Your task to perform on an android device: What's the news in theFalkland Islands? Image 0: 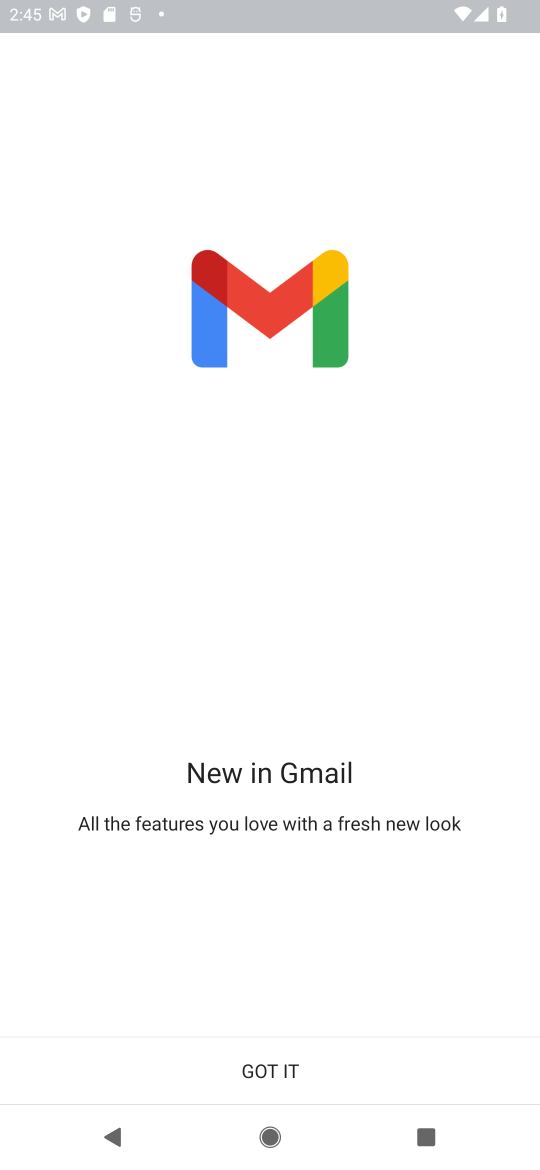
Step 0: press home button
Your task to perform on an android device: What's the news in theFalkland Islands? Image 1: 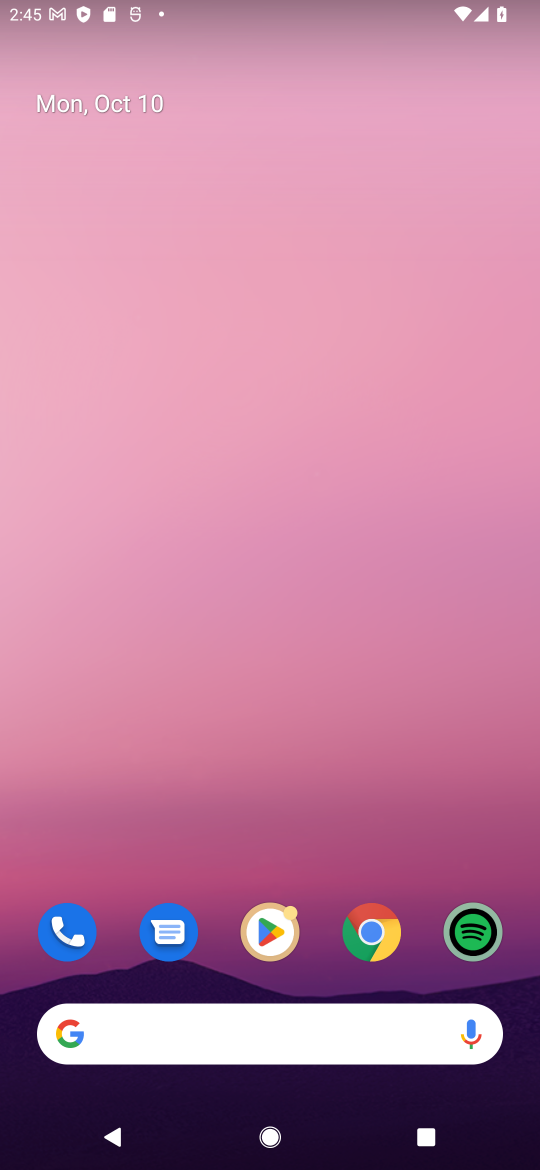
Step 1: click (297, 1036)
Your task to perform on an android device: What's the news in theFalkland Islands? Image 2: 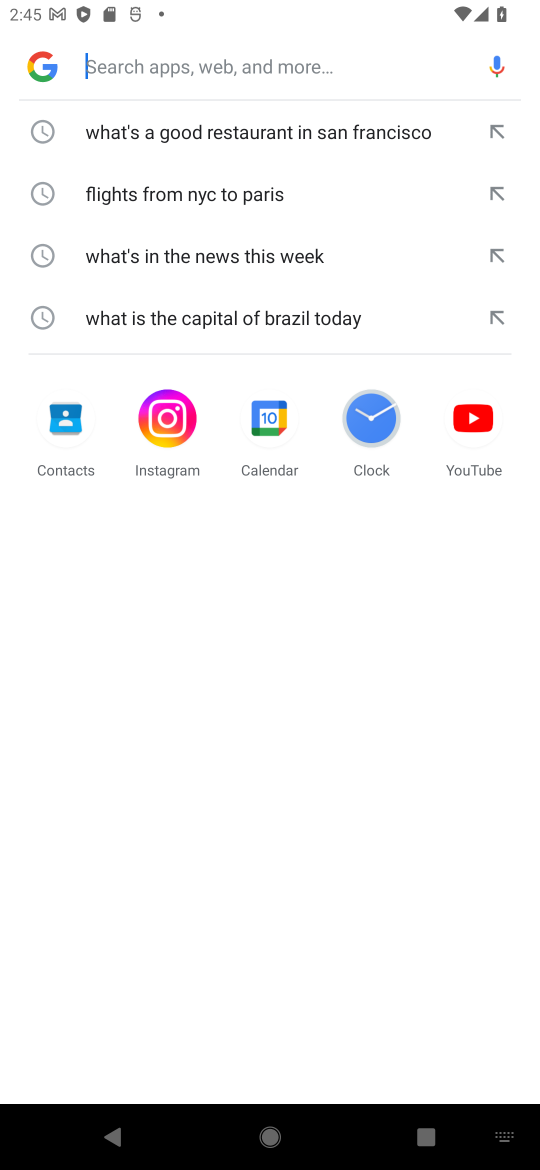
Step 2: type "What's the news in theFalkland Islands"
Your task to perform on an android device: What's the news in theFalkland Islands? Image 3: 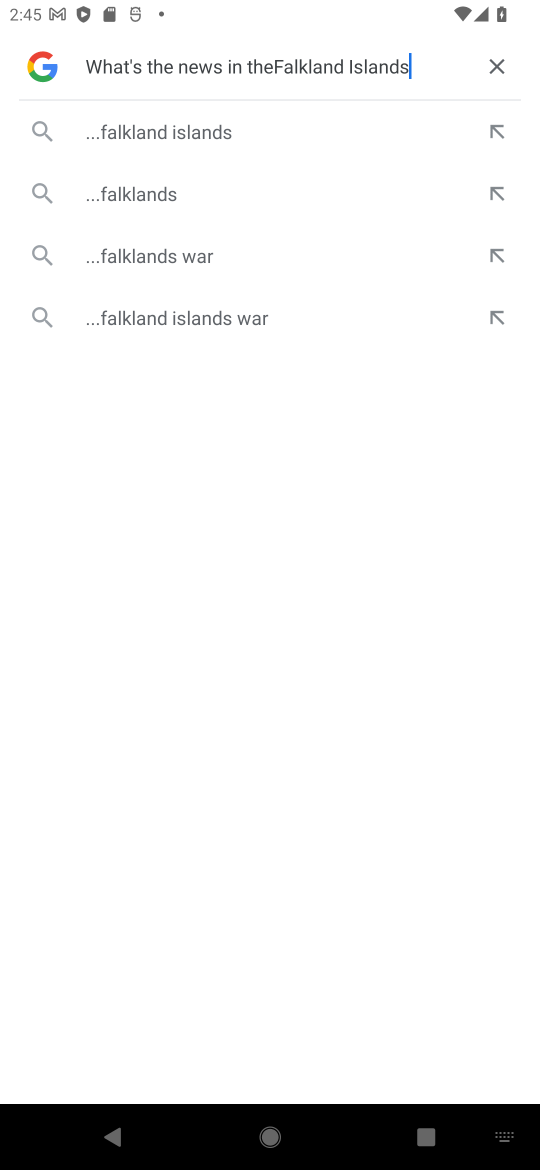
Step 3: press enter
Your task to perform on an android device: What's the news in theFalkland Islands? Image 4: 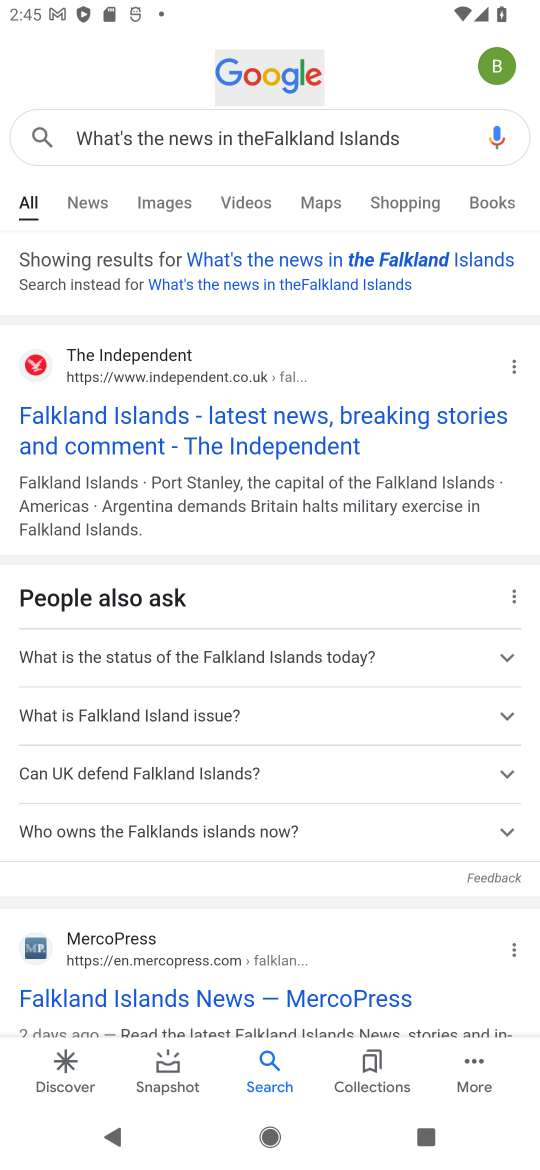
Step 4: click (367, 423)
Your task to perform on an android device: What's the news in theFalkland Islands? Image 5: 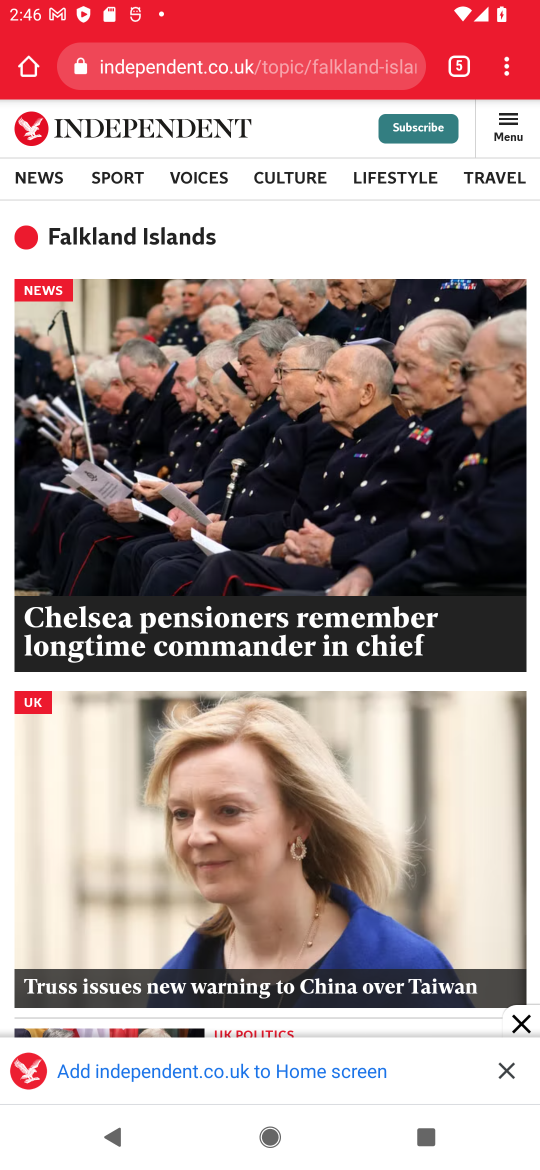
Step 5: task complete